Your task to perform on an android device: Clear the cart on amazon.com. Image 0: 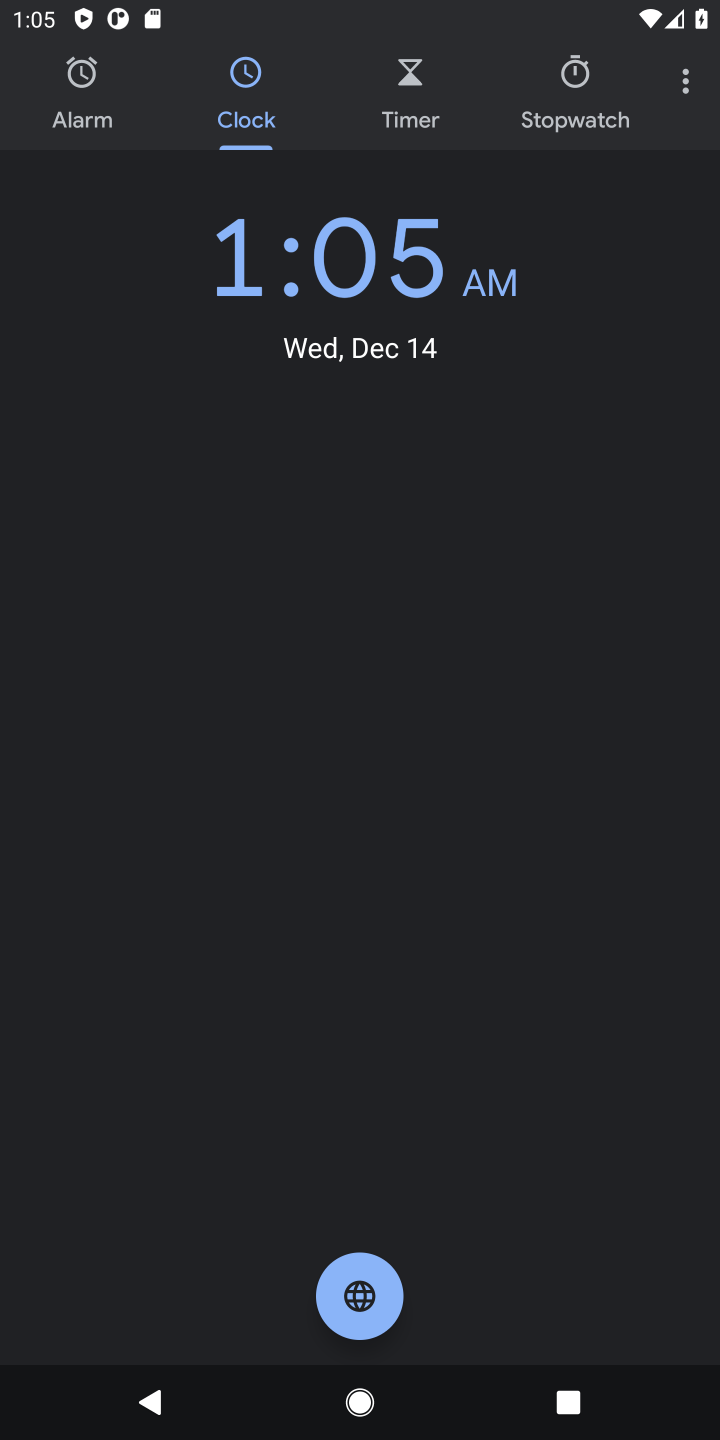
Step 0: press home button
Your task to perform on an android device: Clear the cart on amazon.com. Image 1: 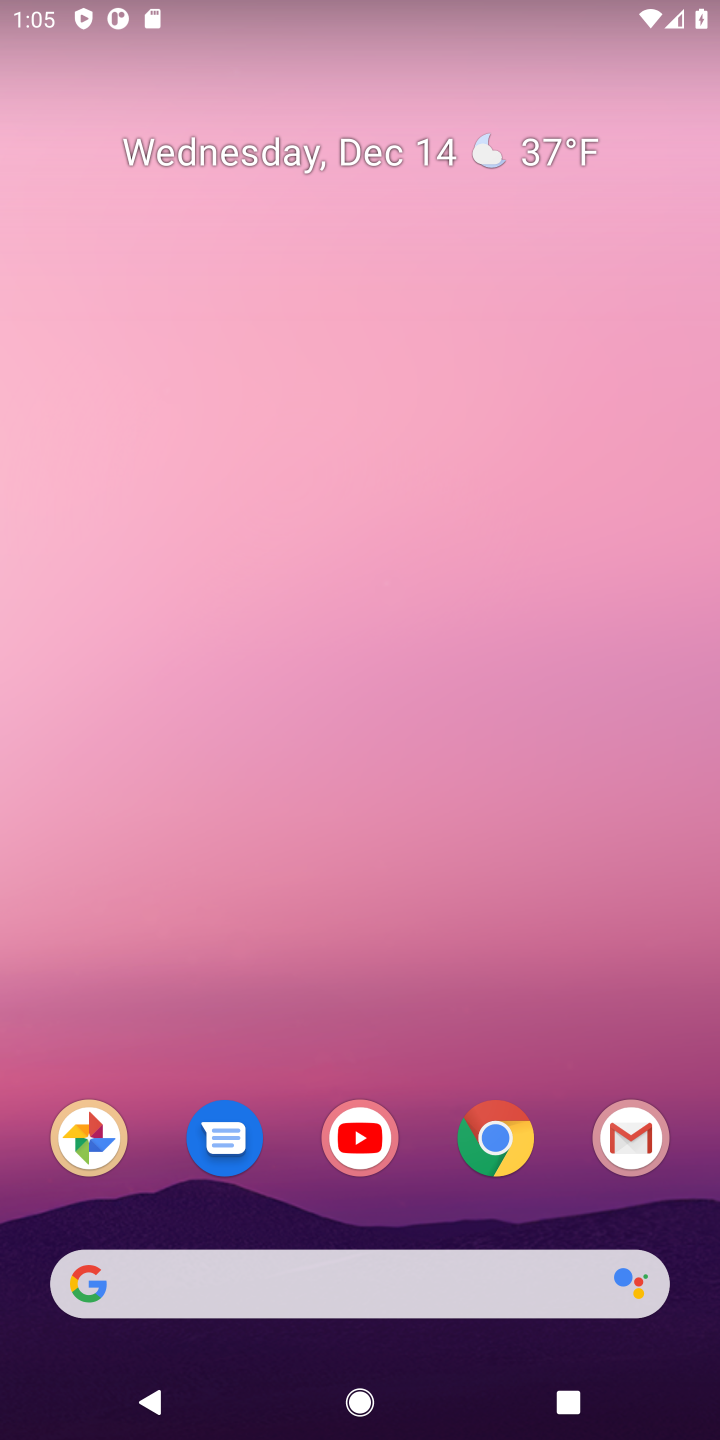
Step 1: click (510, 1150)
Your task to perform on an android device: Clear the cart on amazon.com. Image 2: 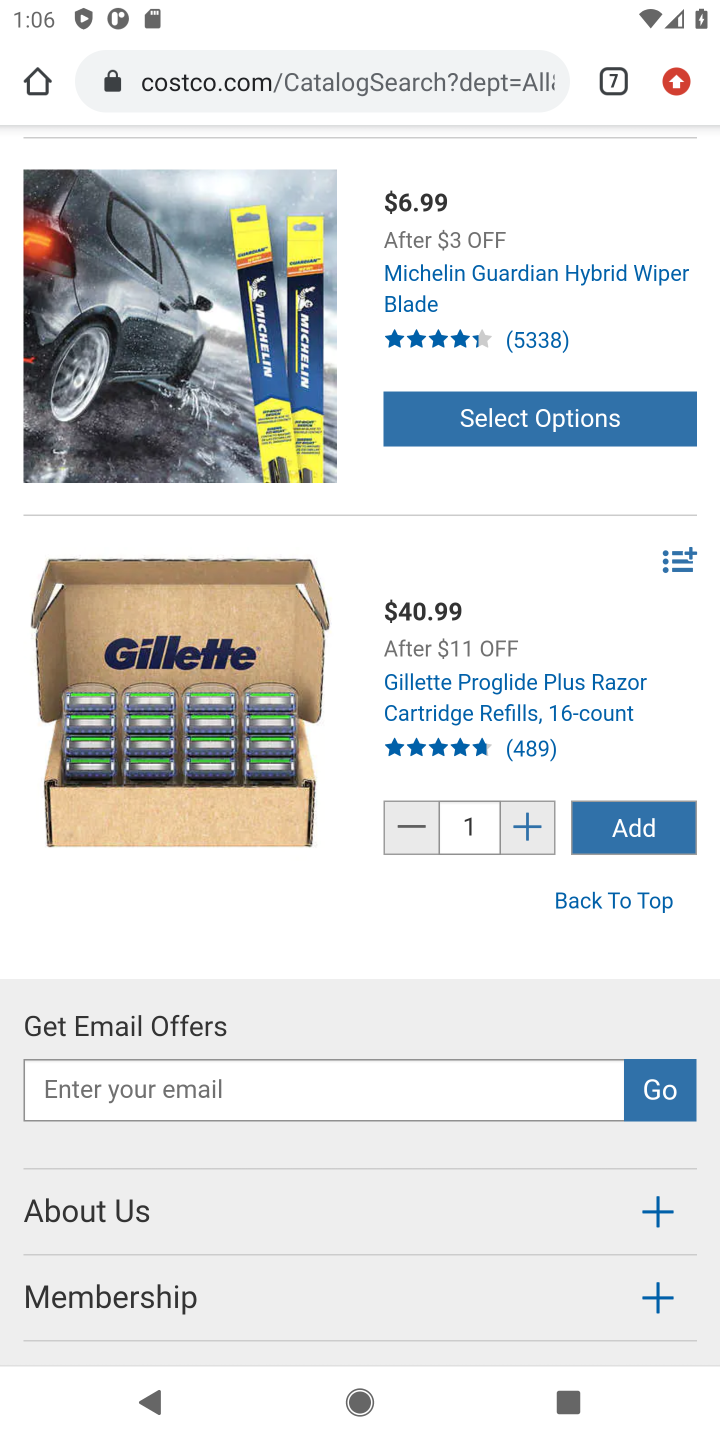
Step 2: click (608, 74)
Your task to perform on an android device: Clear the cart on amazon.com. Image 3: 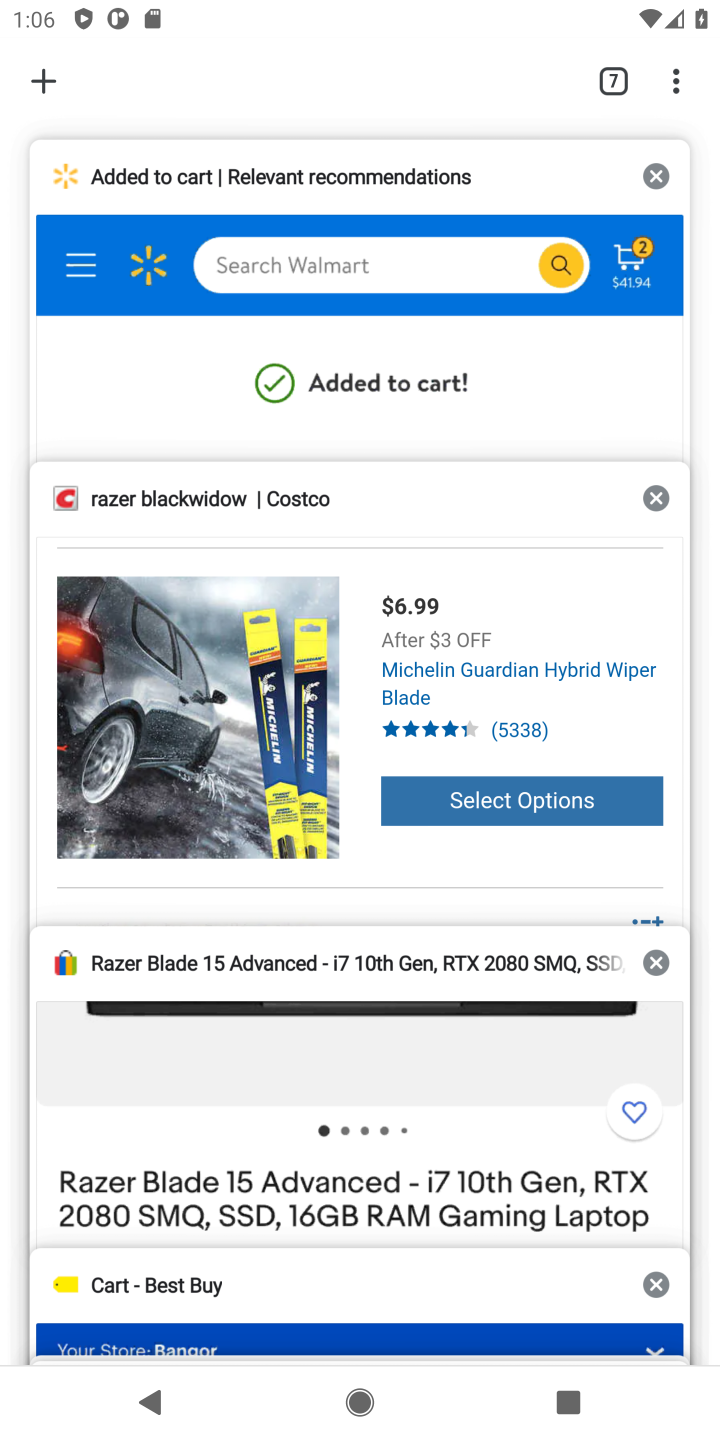
Step 3: drag from (101, 1346) to (274, 886)
Your task to perform on an android device: Clear the cart on amazon.com. Image 4: 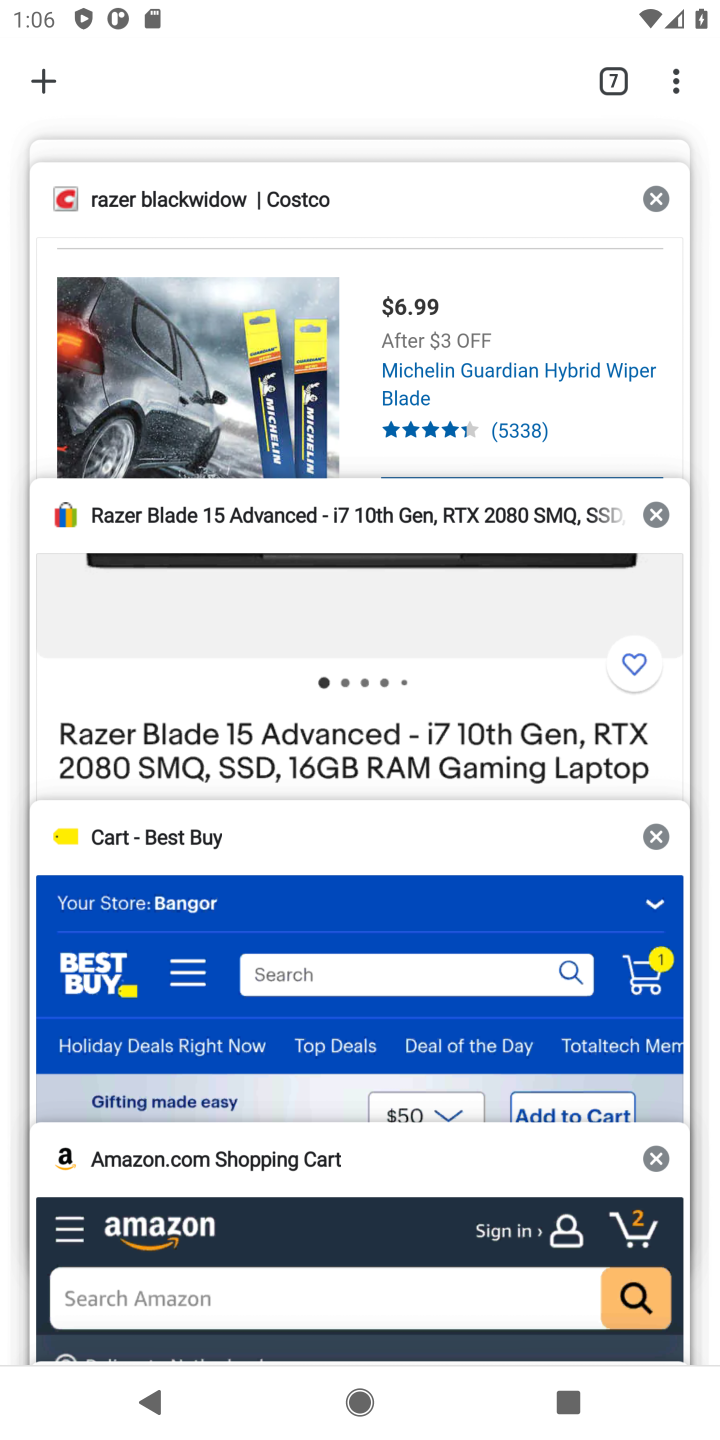
Step 4: click (153, 1217)
Your task to perform on an android device: Clear the cart on amazon.com. Image 5: 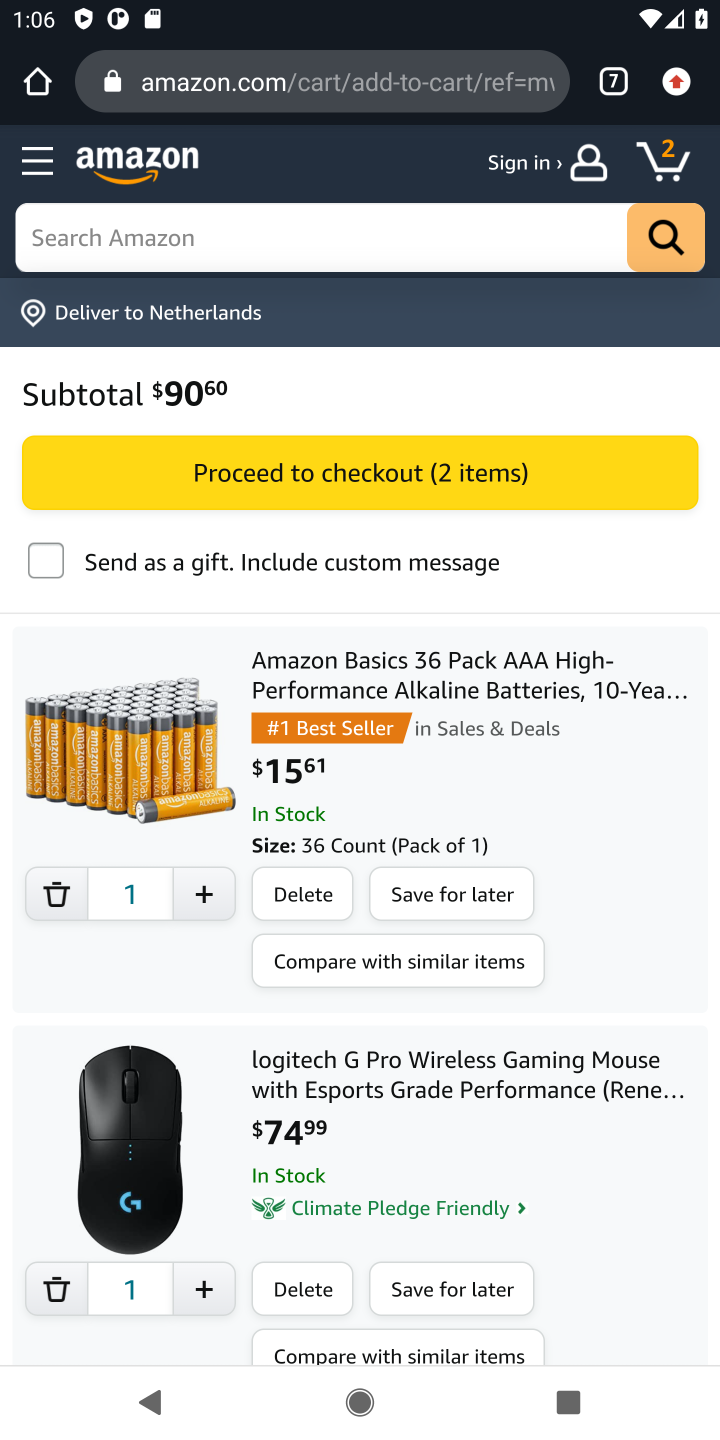
Step 5: click (302, 897)
Your task to perform on an android device: Clear the cart on amazon.com. Image 6: 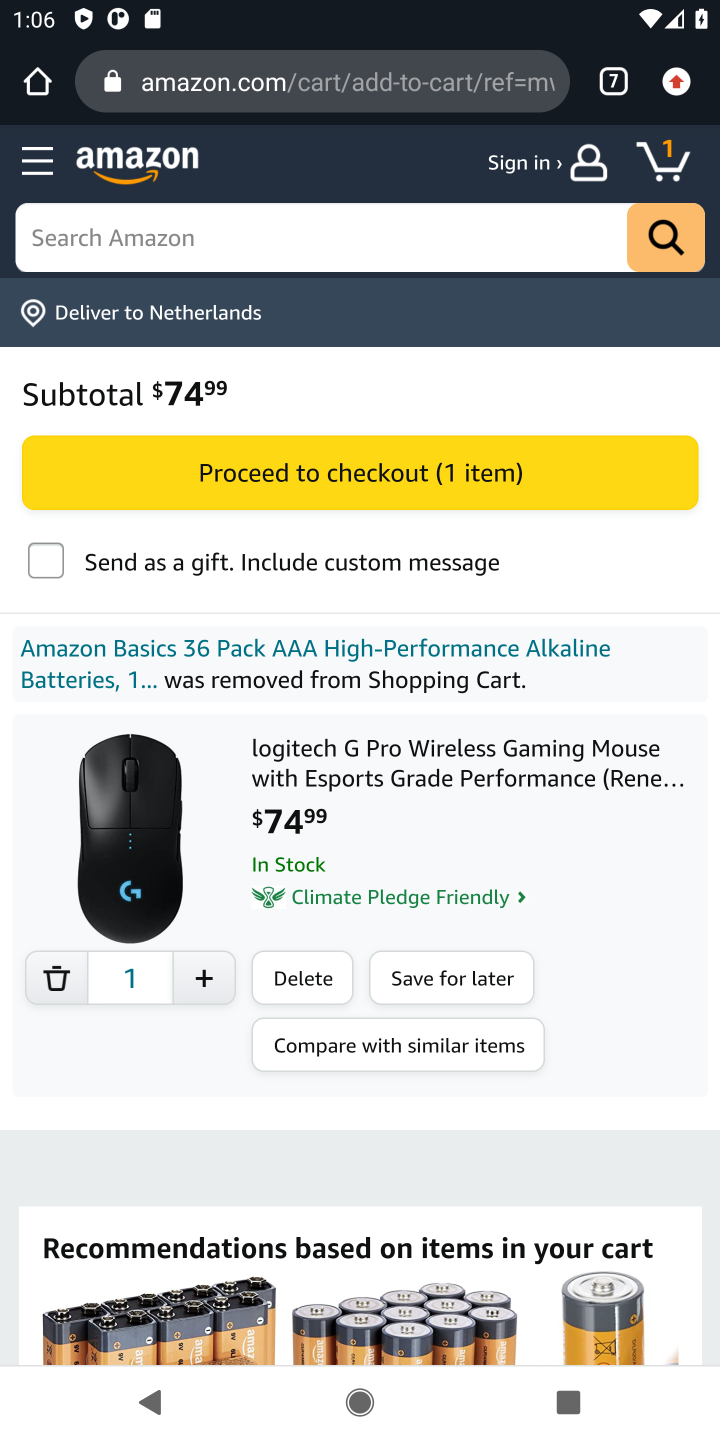
Step 6: click (297, 973)
Your task to perform on an android device: Clear the cart on amazon.com. Image 7: 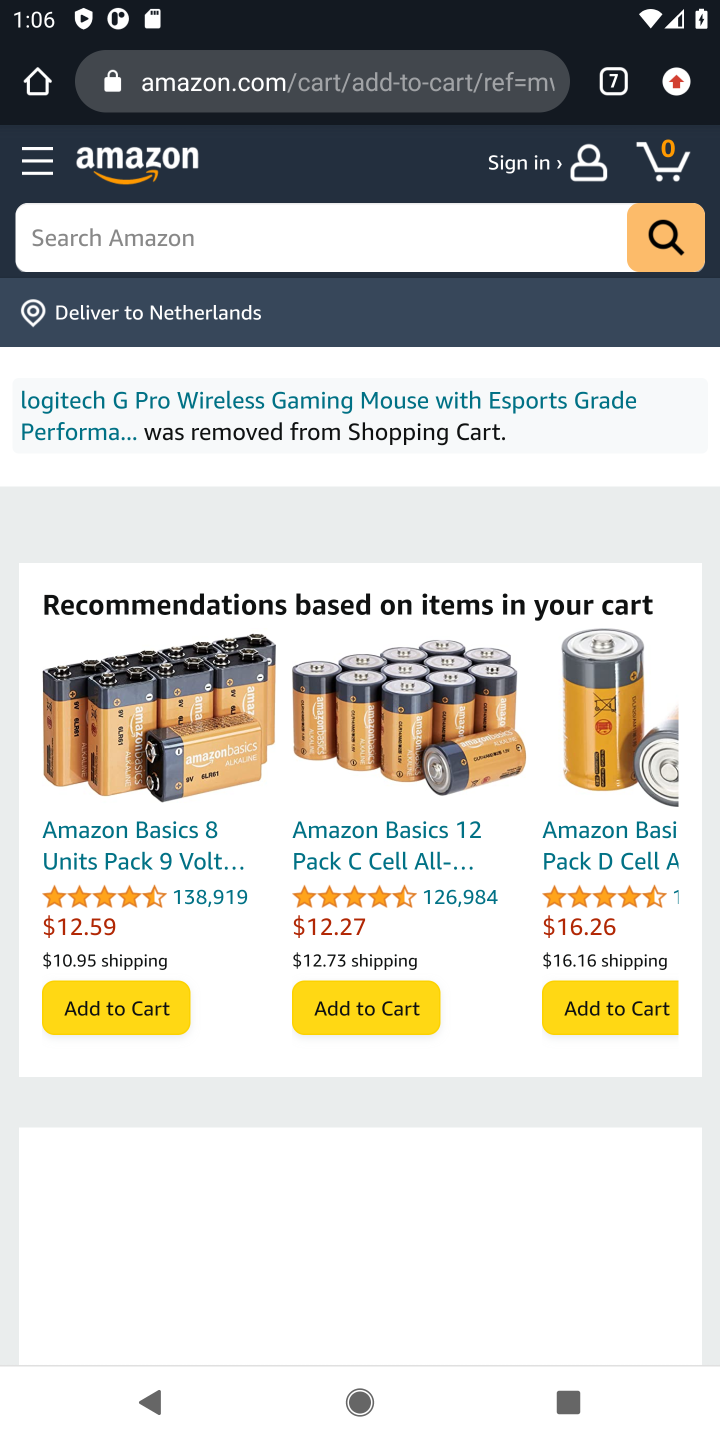
Step 7: task complete